Your task to perform on an android device: delete a single message in the gmail app Image 0: 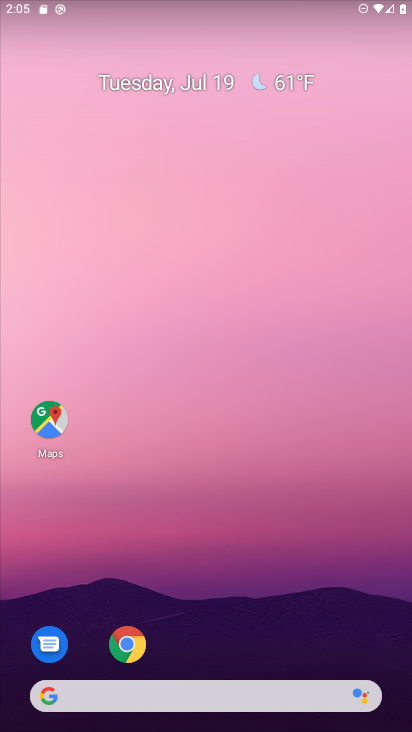
Step 0: drag from (224, 655) to (183, 67)
Your task to perform on an android device: delete a single message in the gmail app Image 1: 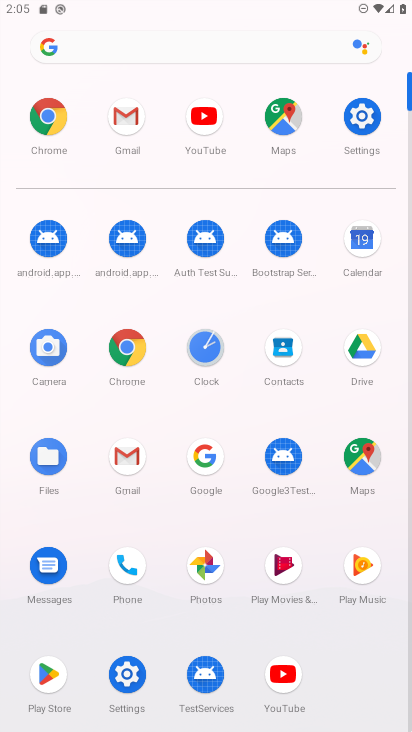
Step 1: click (114, 459)
Your task to perform on an android device: delete a single message in the gmail app Image 2: 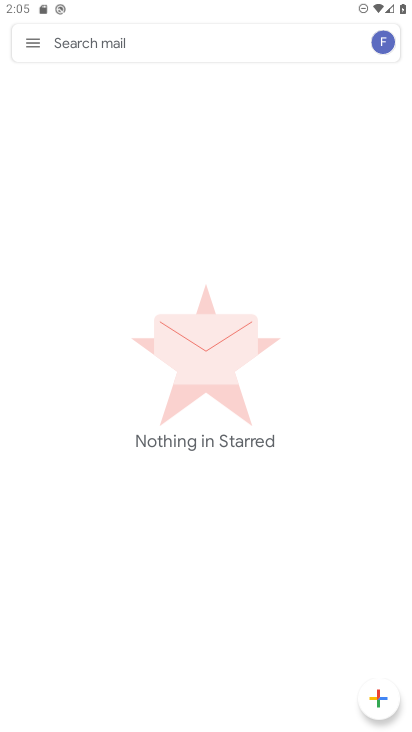
Step 2: task complete